Your task to perform on an android device: turn on data saver in the chrome app Image 0: 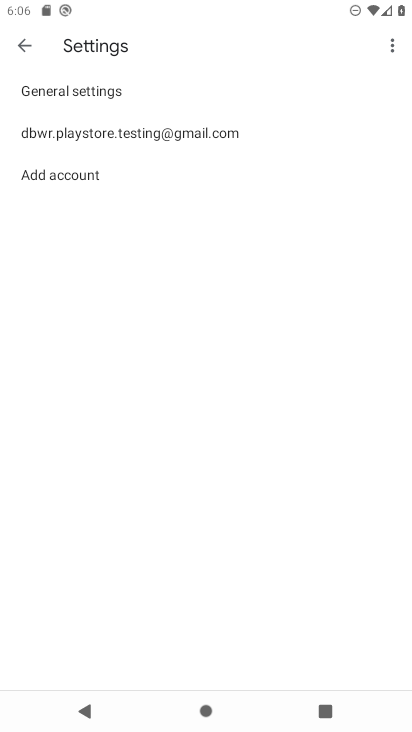
Step 0: press home button
Your task to perform on an android device: turn on data saver in the chrome app Image 1: 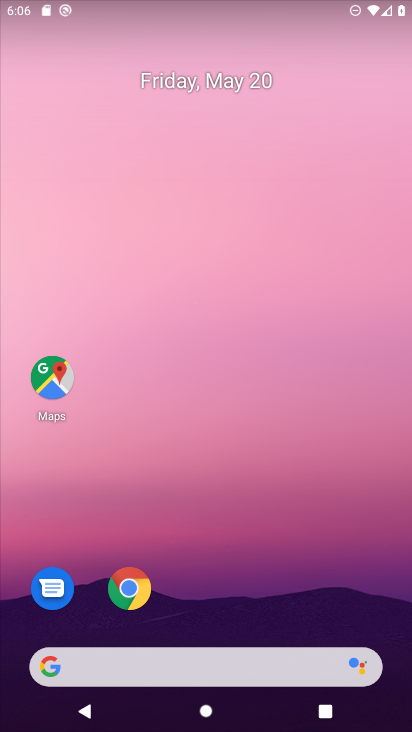
Step 1: click (139, 585)
Your task to perform on an android device: turn on data saver in the chrome app Image 2: 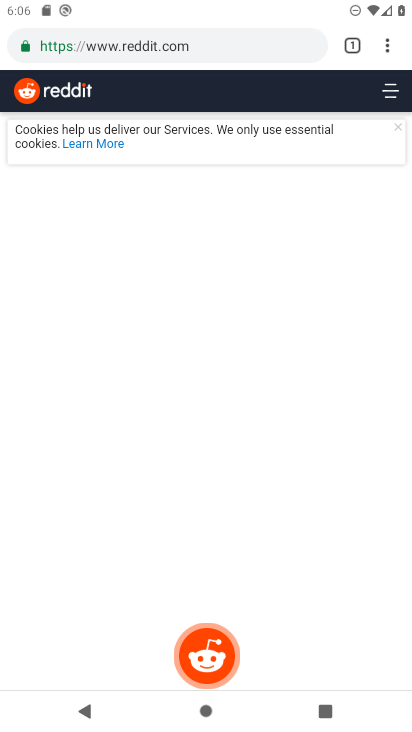
Step 2: click (383, 48)
Your task to perform on an android device: turn on data saver in the chrome app Image 3: 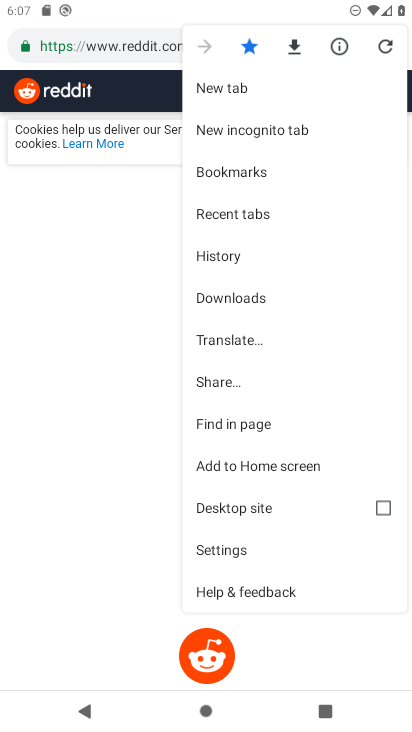
Step 3: click (231, 559)
Your task to perform on an android device: turn on data saver in the chrome app Image 4: 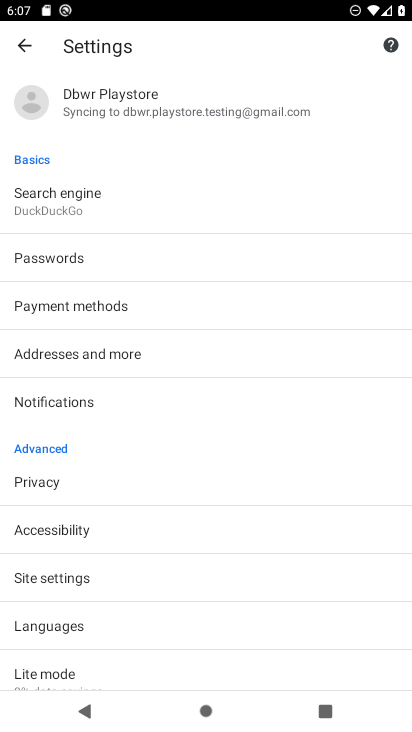
Step 4: click (38, 671)
Your task to perform on an android device: turn on data saver in the chrome app Image 5: 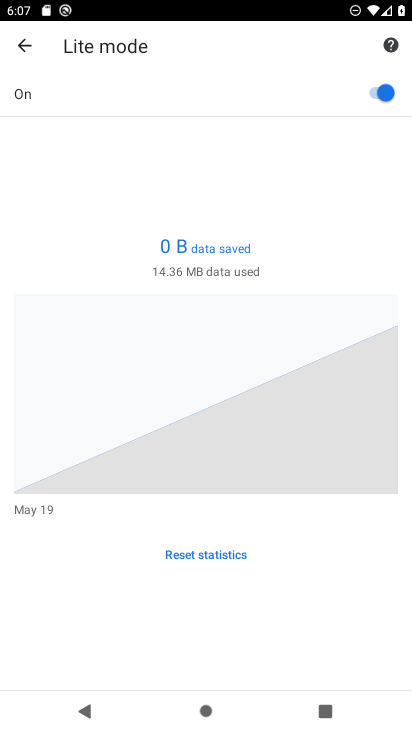
Step 5: task complete